Your task to perform on an android device: turn on sleep mode Image 0: 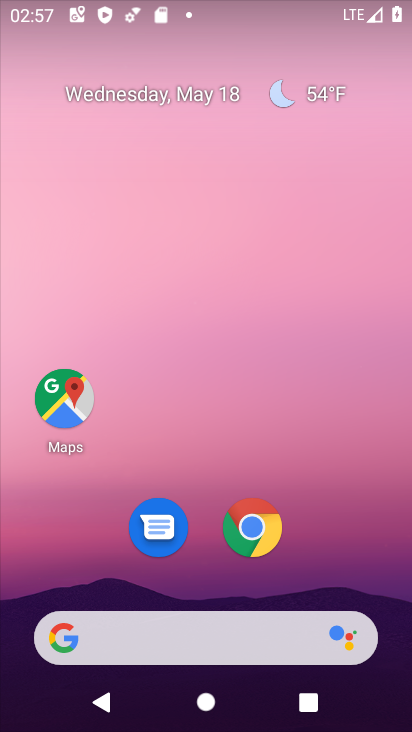
Step 0: click (147, 11)
Your task to perform on an android device: turn on sleep mode Image 1: 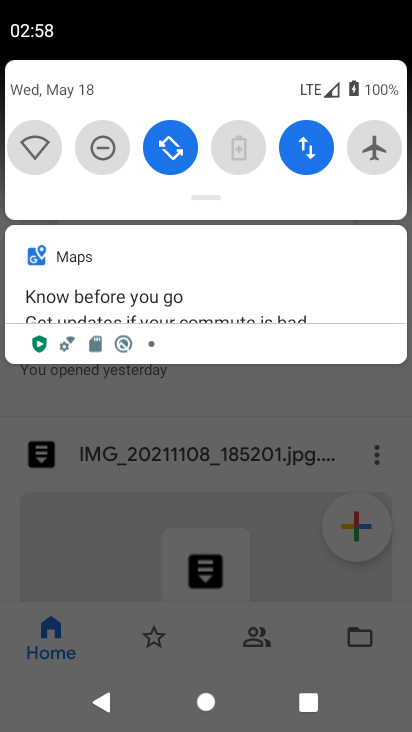
Step 1: press home button
Your task to perform on an android device: turn on sleep mode Image 2: 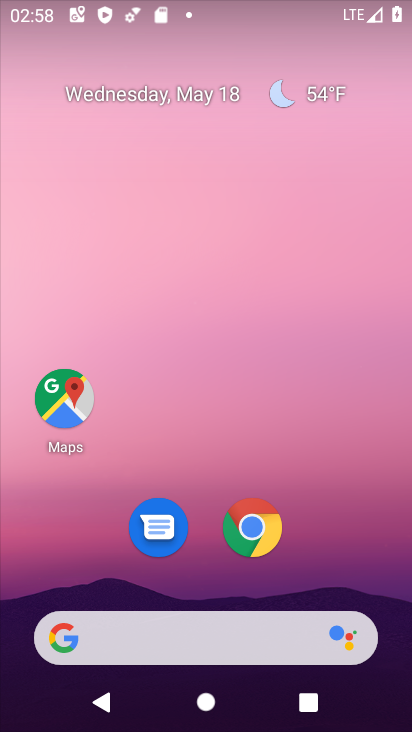
Step 2: drag from (200, 593) to (143, 219)
Your task to perform on an android device: turn on sleep mode Image 3: 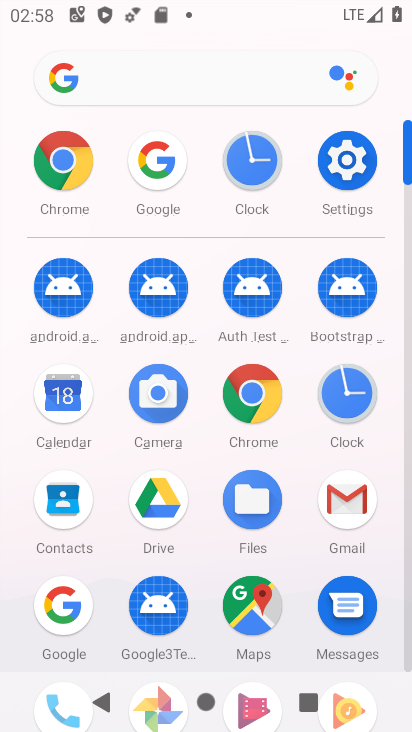
Step 3: click (346, 185)
Your task to perform on an android device: turn on sleep mode Image 4: 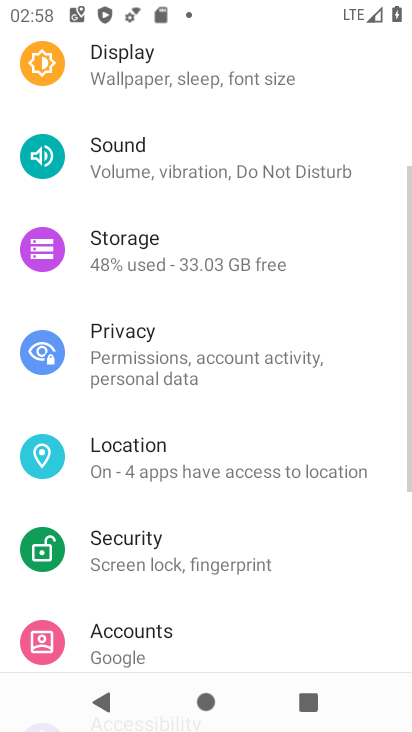
Step 4: drag from (297, 512) to (275, 642)
Your task to perform on an android device: turn on sleep mode Image 5: 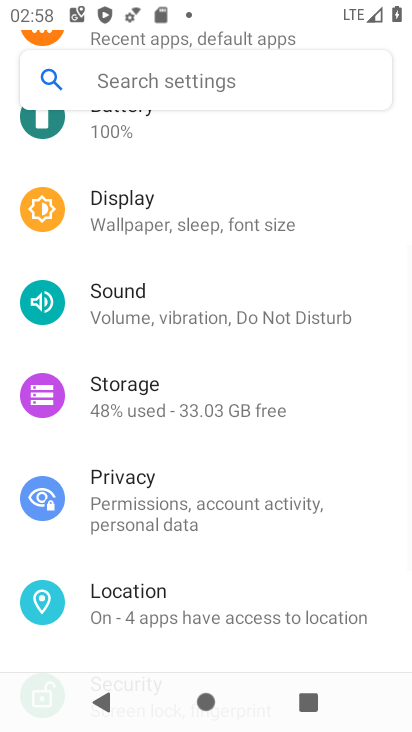
Step 5: click (203, 234)
Your task to perform on an android device: turn on sleep mode Image 6: 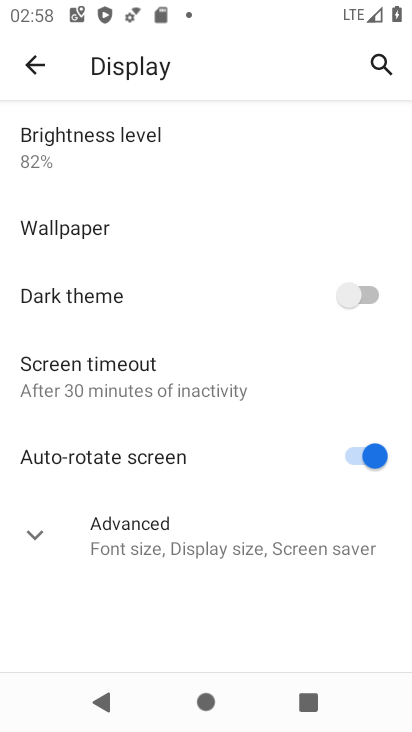
Step 6: task complete